Your task to perform on an android device: open device folders in google photos Image 0: 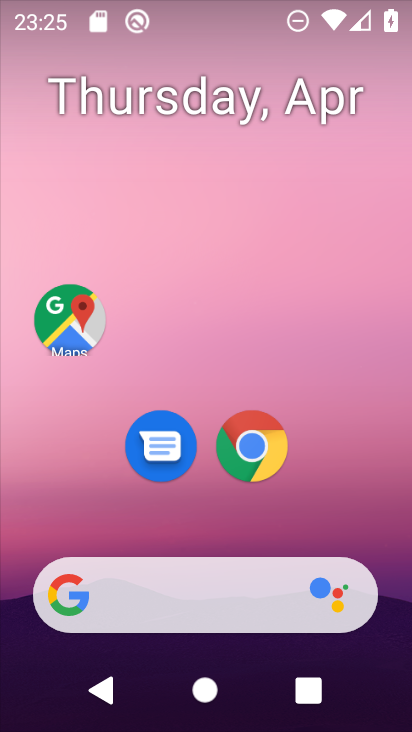
Step 0: drag from (209, 424) to (249, 192)
Your task to perform on an android device: open device folders in google photos Image 1: 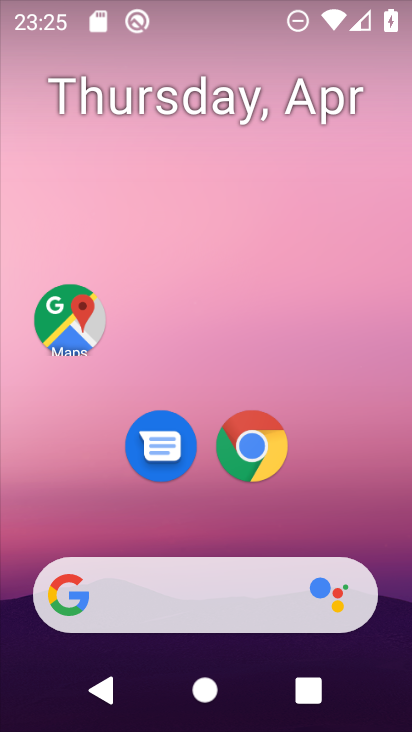
Step 1: drag from (222, 529) to (253, 203)
Your task to perform on an android device: open device folders in google photos Image 2: 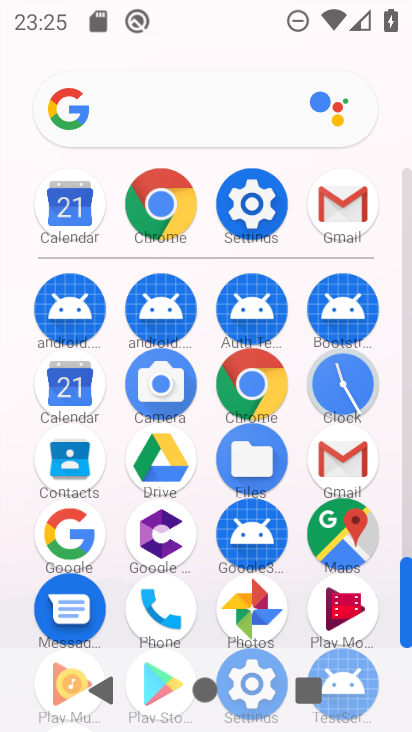
Step 2: click (258, 606)
Your task to perform on an android device: open device folders in google photos Image 3: 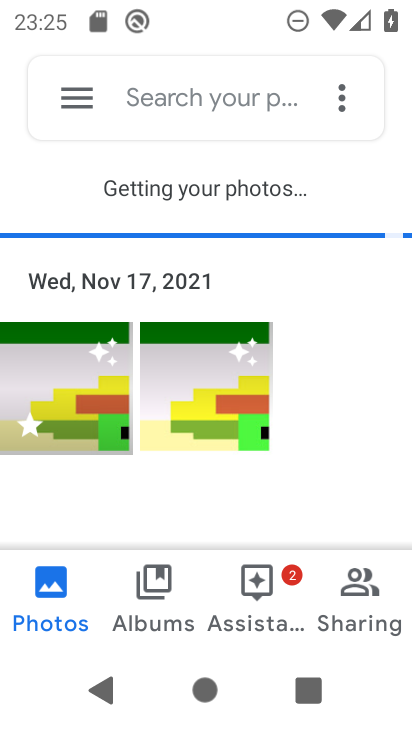
Step 3: drag from (239, 498) to (274, 273)
Your task to perform on an android device: open device folders in google photos Image 4: 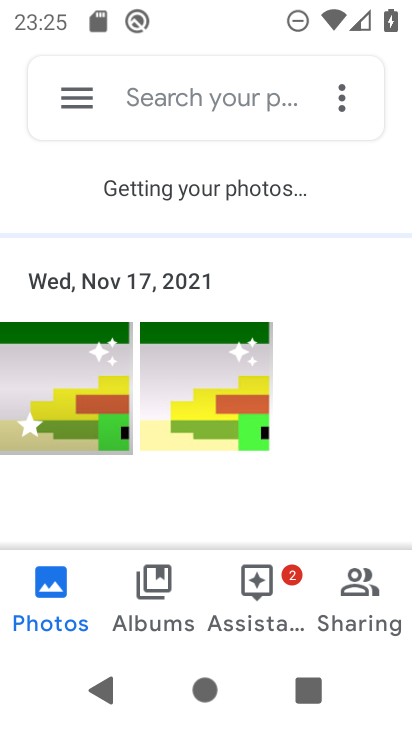
Step 4: click (82, 108)
Your task to perform on an android device: open device folders in google photos Image 5: 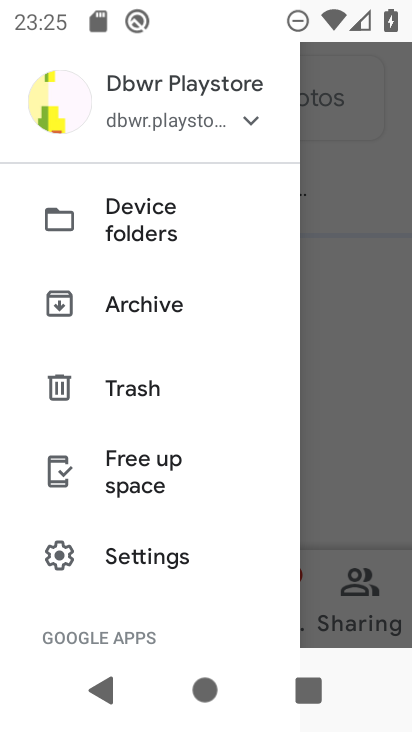
Step 5: click (125, 223)
Your task to perform on an android device: open device folders in google photos Image 6: 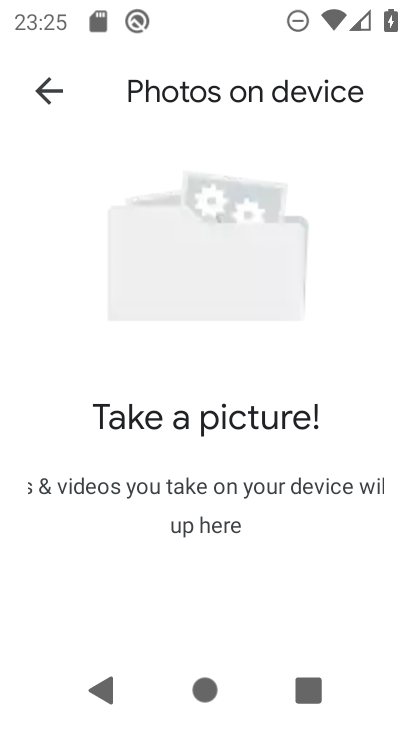
Step 6: task complete